Your task to perform on an android device: turn on wifi Image 0: 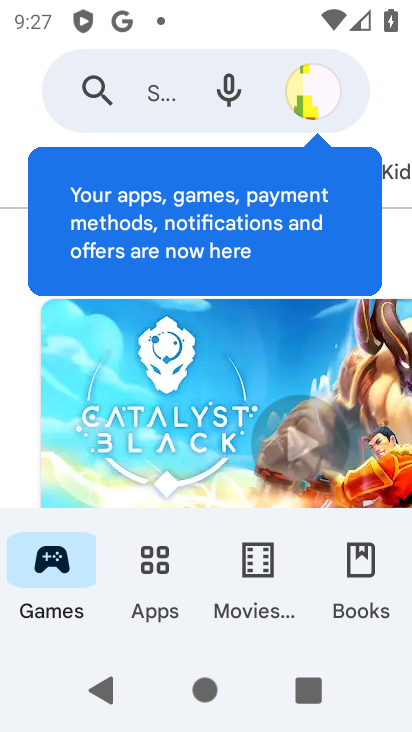
Step 0: press home button
Your task to perform on an android device: turn on wifi Image 1: 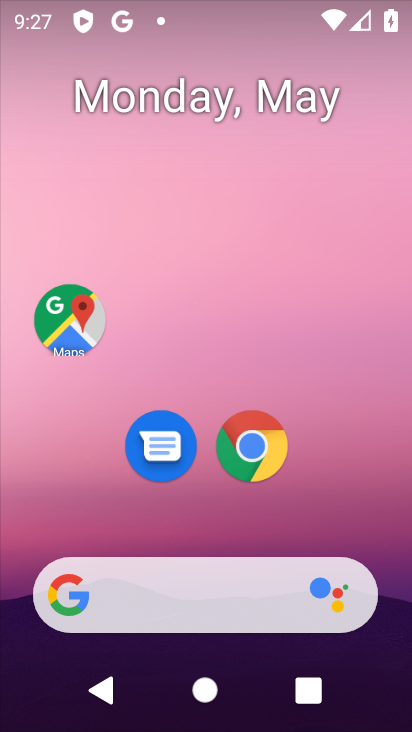
Step 1: drag from (103, 483) to (182, 130)
Your task to perform on an android device: turn on wifi Image 2: 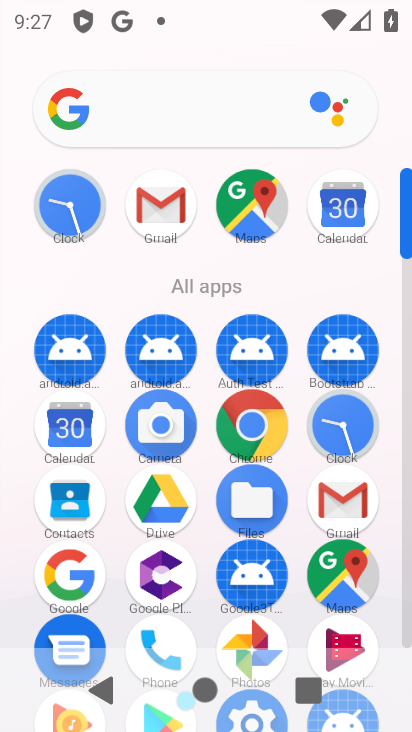
Step 2: drag from (145, 620) to (184, 422)
Your task to perform on an android device: turn on wifi Image 3: 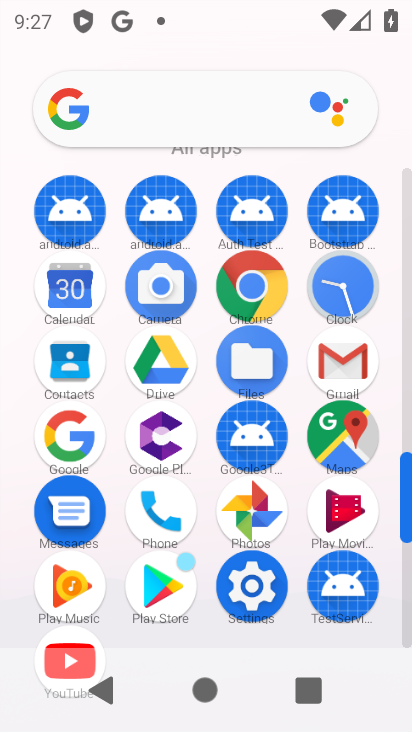
Step 3: click (250, 586)
Your task to perform on an android device: turn on wifi Image 4: 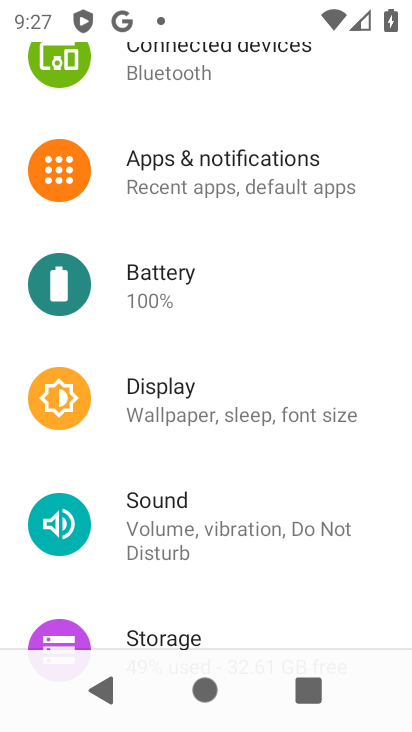
Step 4: drag from (256, 163) to (242, 609)
Your task to perform on an android device: turn on wifi Image 5: 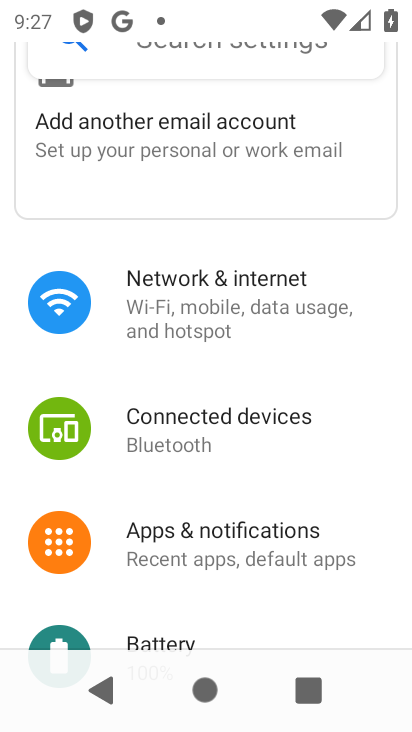
Step 5: drag from (245, 255) to (238, 478)
Your task to perform on an android device: turn on wifi Image 6: 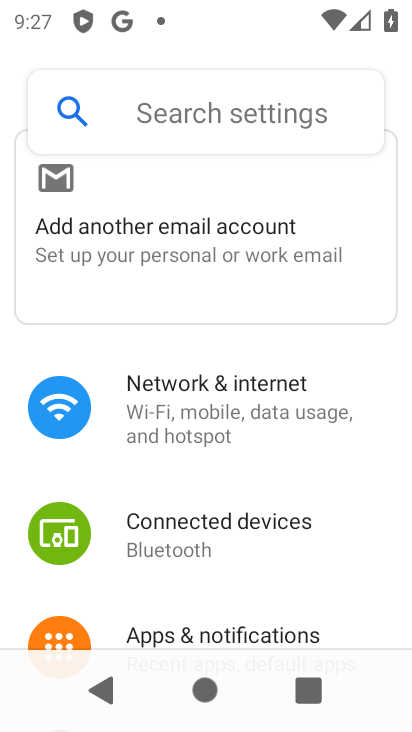
Step 6: click (185, 433)
Your task to perform on an android device: turn on wifi Image 7: 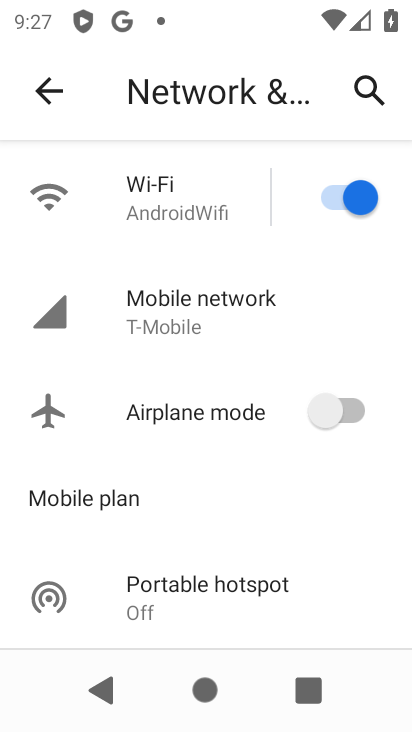
Step 7: click (190, 222)
Your task to perform on an android device: turn on wifi Image 8: 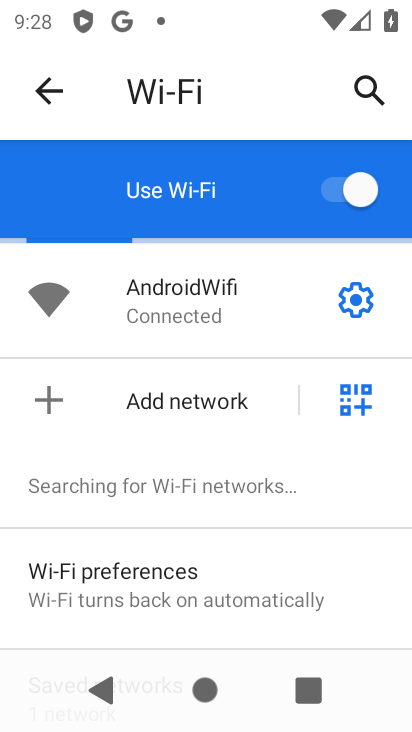
Step 8: task complete